Your task to perform on an android device: Open battery settings Image 0: 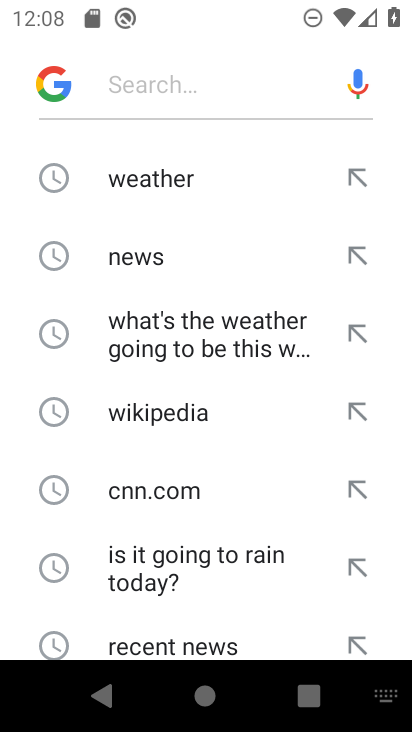
Step 0: press home button
Your task to perform on an android device: Open battery settings Image 1: 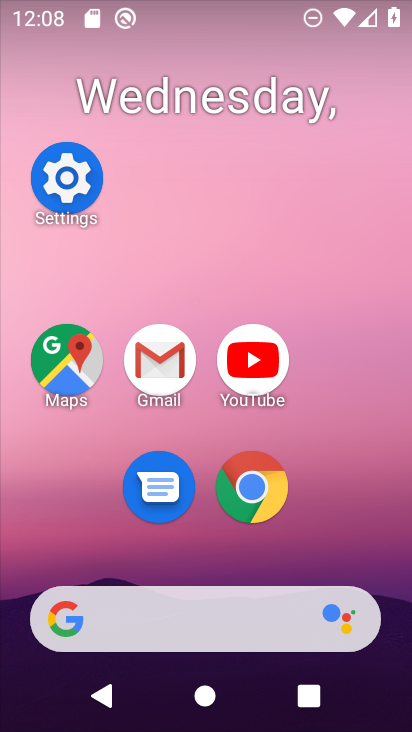
Step 1: click (51, 170)
Your task to perform on an android device: Open battery settings Image 2: 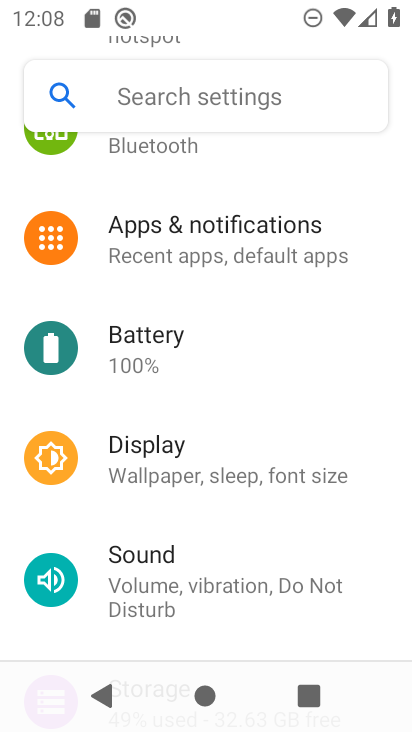
Step 2: click (210, 357)
Your task to perform on an android device: Open battery settings Image 3: 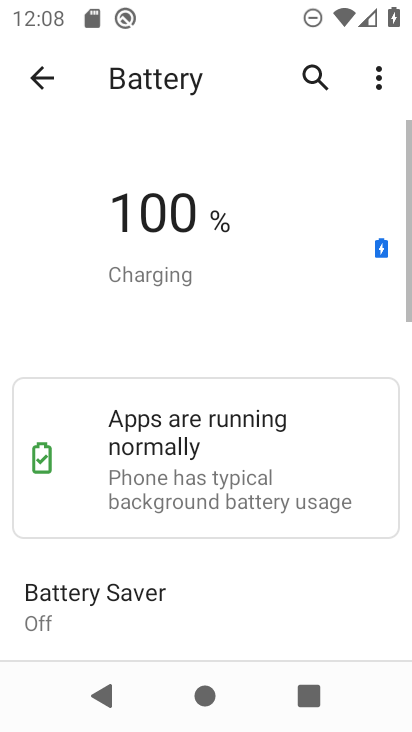
Step 3: task complete